Your task to perform on an android device: turn on location history Image 0: 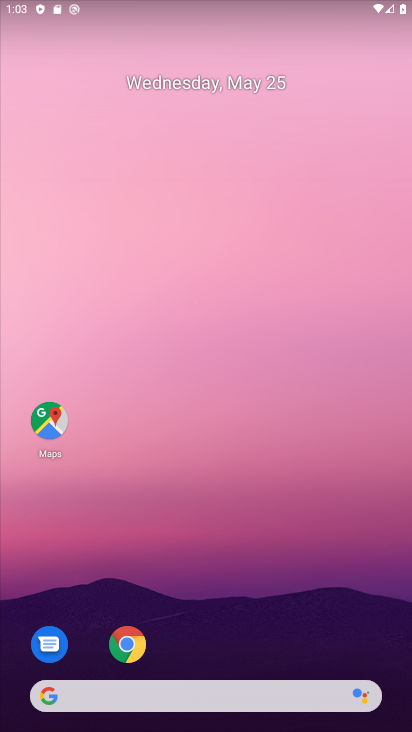
Step 0: click (140, 89)
Your task to perform on an android device: turn on location history Image 1: 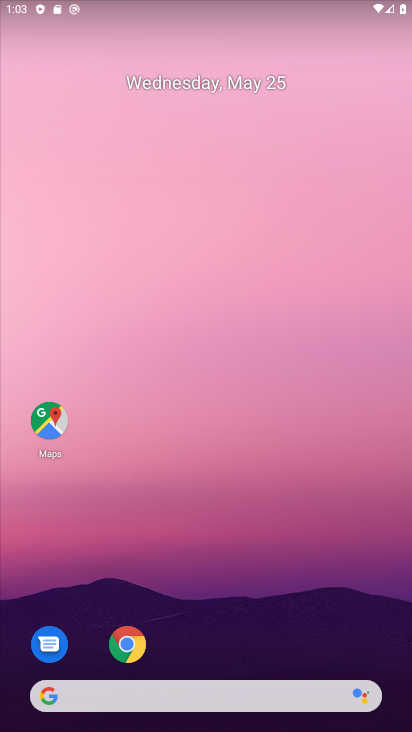
Step 1: drag from (196, 504) to (196, 245)
Your task to perform on an android device: turn on location history Image 2: 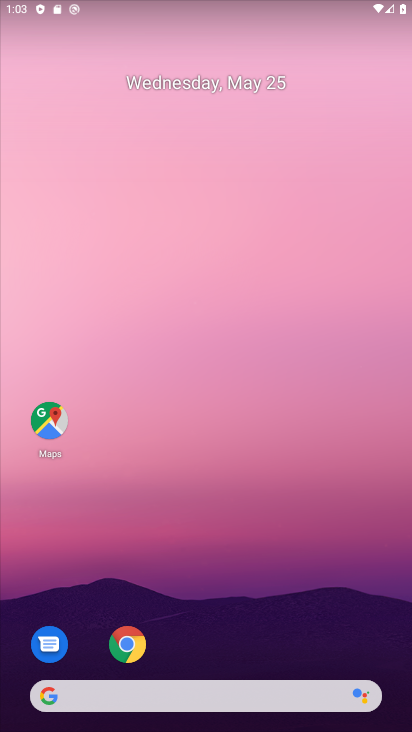
Step 2: drag from (238, 640) to (341, 0)
Your task to perform on an android device: turn on location history Image 3: 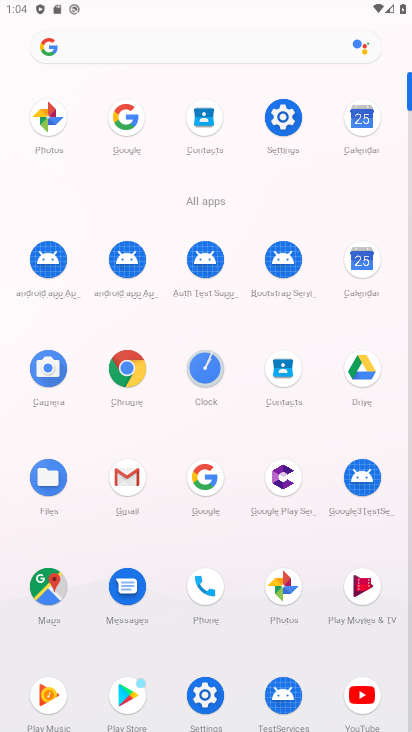
Step 3: click (271, 132)
Your task to perform on an android device: turn on location history Image 4: 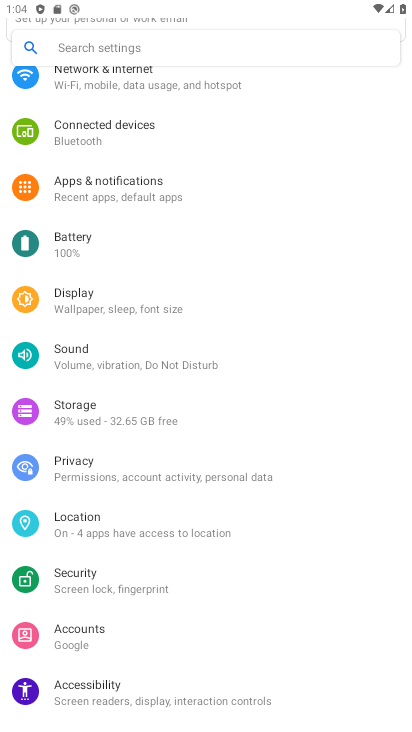
Step 4: click (117, 532)
Your task to perform on an android device: turn on location history Image 5: 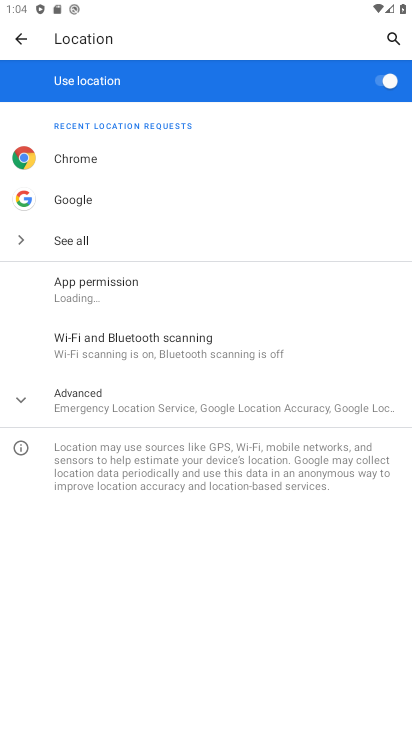
Step 5: click (51, 393)
Your task to perform on an android device: turn on location history Image 6: 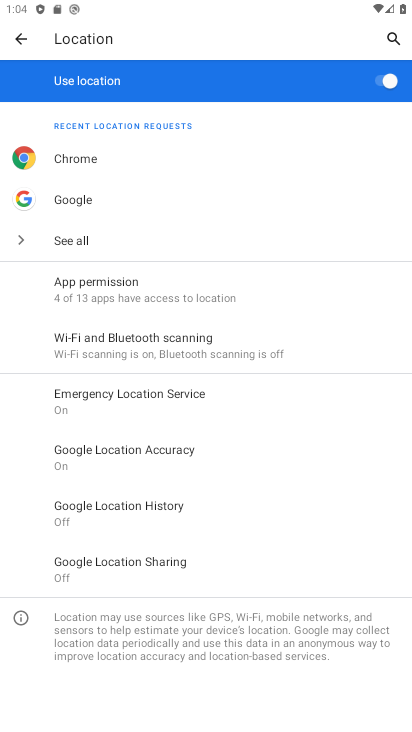
Step 6: click (137, 518)
Your task to perform on an android device: turn on location history Image 7: 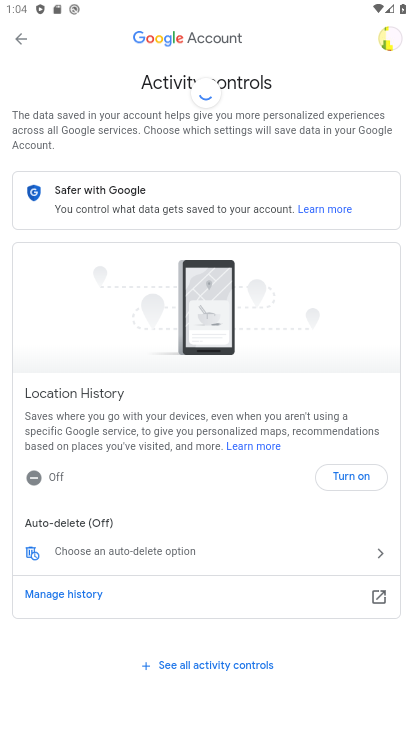
Step 7: click (343, 479)
Your task to perform on an android device: turn on location history Image 8: 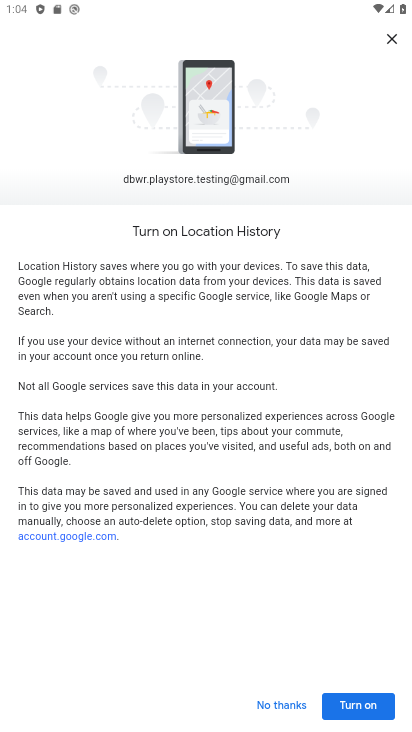
Step 8: click (351, 708)
Your task to perform on an android device: turn on location history Image 9: 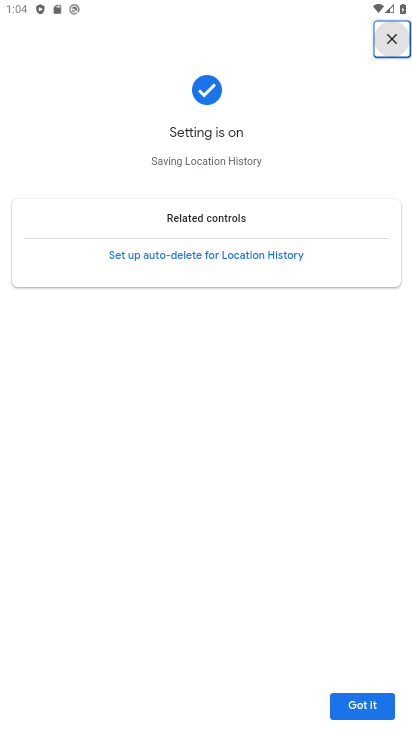
Step 9: click (356, 704)
Your task to perform on an android device: turn on location history Image 10: 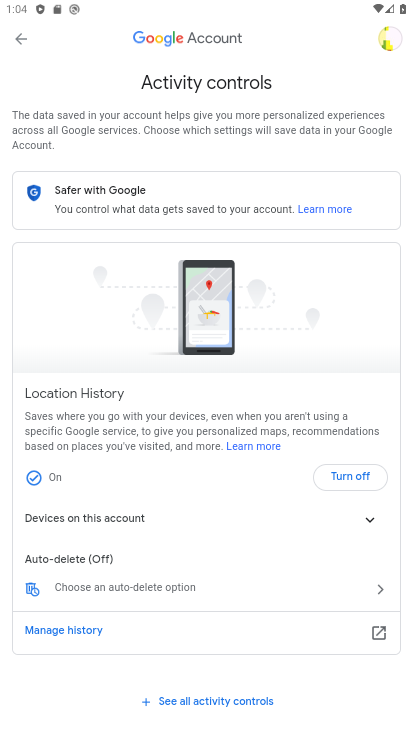
Step 10: task complete